Your task to perform on an android device: Open Reddit.com Image 0: 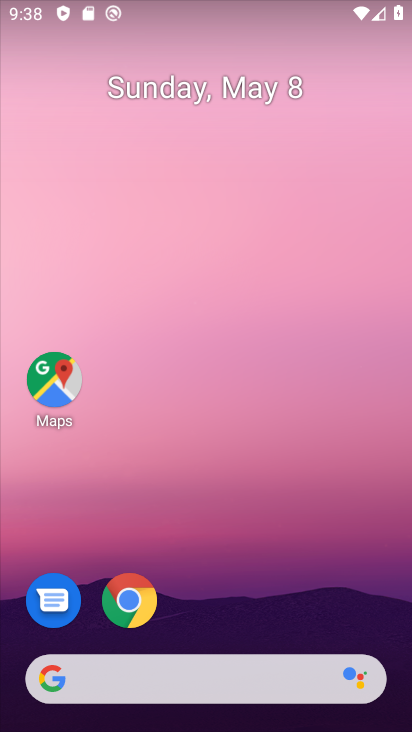
Step 0: click (146, 601)
Your task to perform on an android device: Open Reddit.com Image 1: 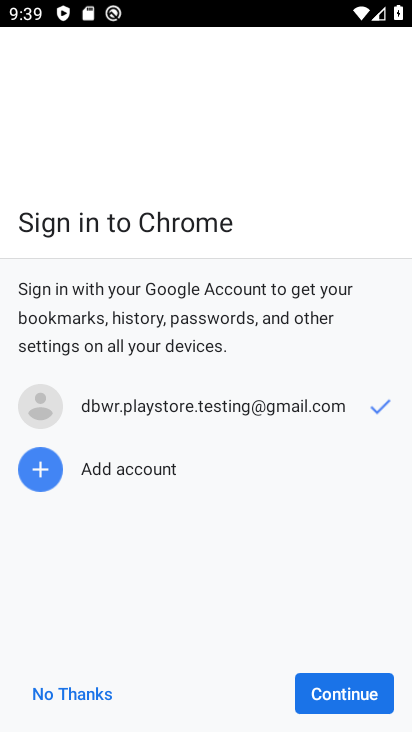
Step 1: click (305, 691)
Your task to perform on an android device: Open Reddit.com Image 2: 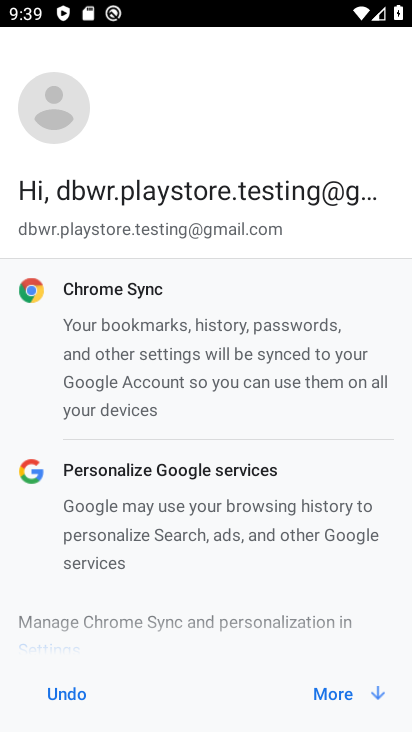
Step 2: click (316, 693)
Your task to perform on an android device: Open Reddit.com Image 3: 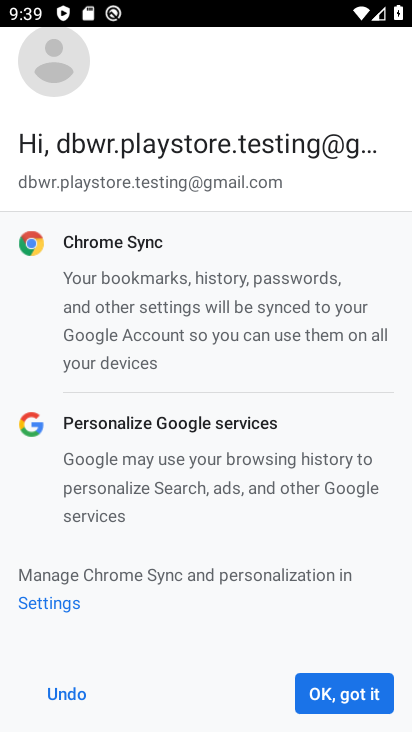
Step 3: click (316, 693)
Your task to perform on an android device: Open Reddit.com Image 4: 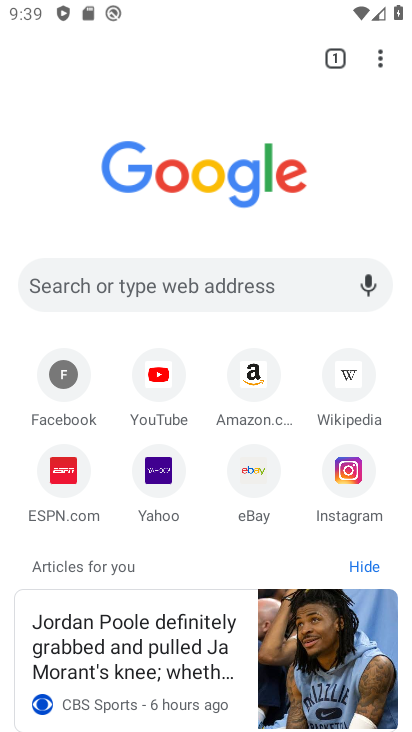
Step 4: click (189, 300)
Your task to perform on an android device: Open Reddit.com Image 5: 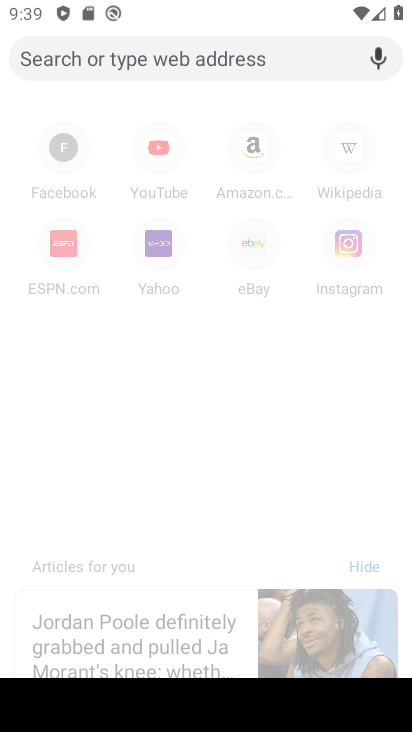
Step 5: type "reddit.com"
Your task to perform on an android device: Open Reddit.com Image 6: 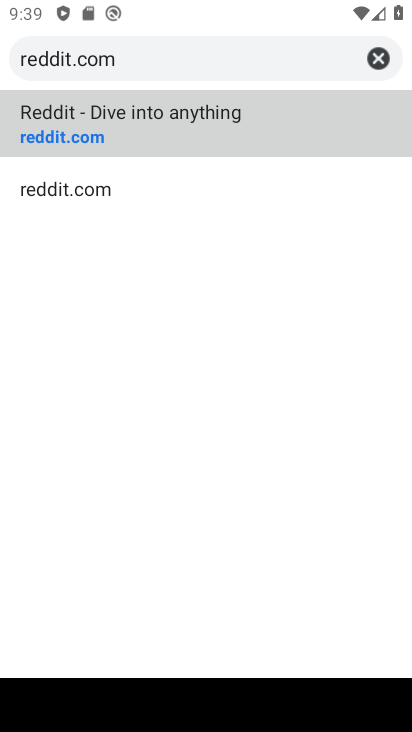
Step 6: click (100, 122)
Your task to perform on an android device: Open Reddit.com Image 7: 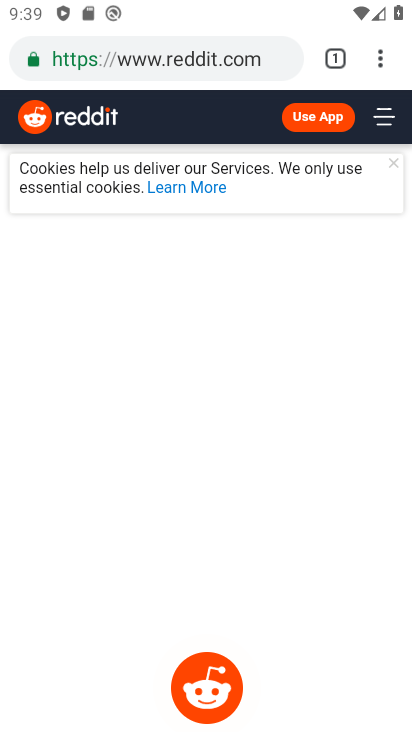
Step 7: task complete